Your task to perform on an android device: open a new tab in the chrome app Image 0: 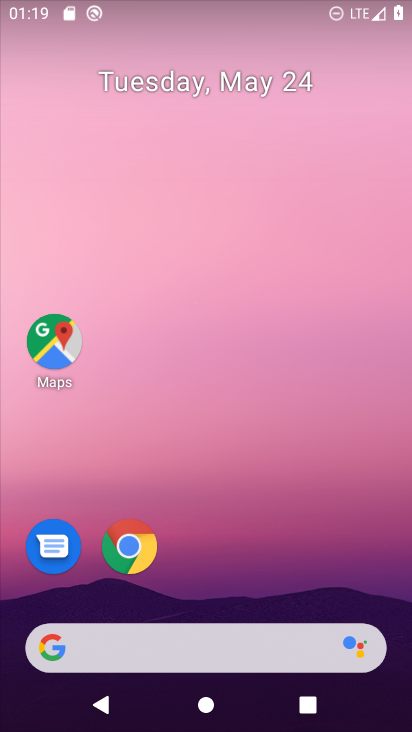
Step 0: drag from (286, 681) to (297, 83)
Your task to perform on an android device: open a new tab in the chrome app Image 1: 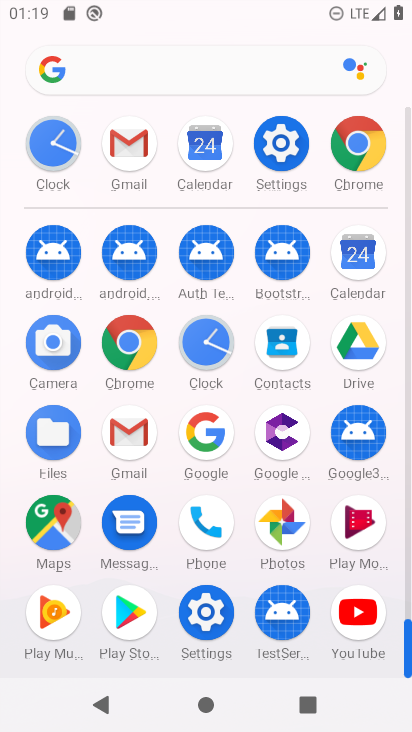
Step 1: click (130, 342)
Your task to perform on an android device: open a new tab in the chrome app Image 2: 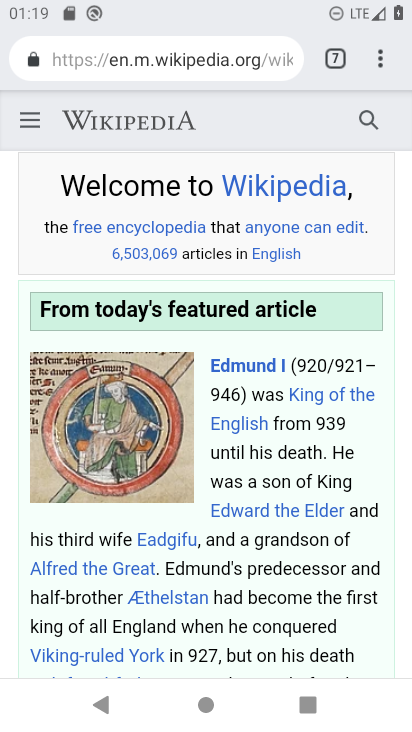
Step 2: task complete